Your task to perform on an android device: Show me recent news Image 0: 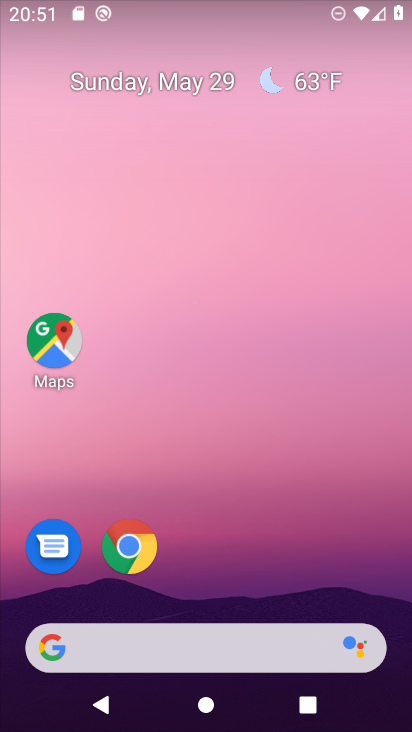
Step 0: click (57, 652)
Your task to perform on an android device: Show me recent news Image 1: 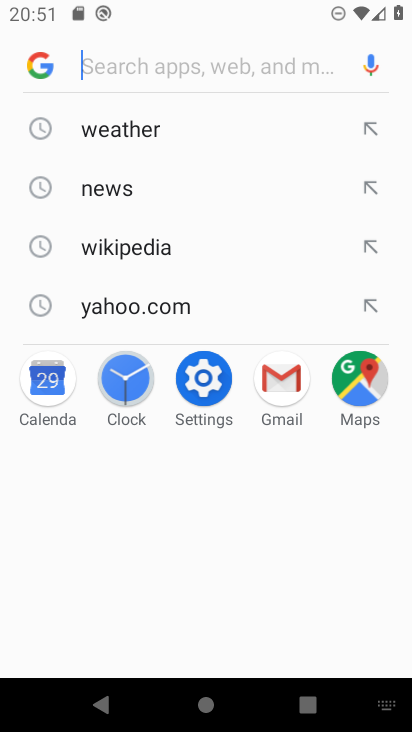
Step 1: click (115, 186)
Your task to perform on an android device: Show me recent news Image 2: 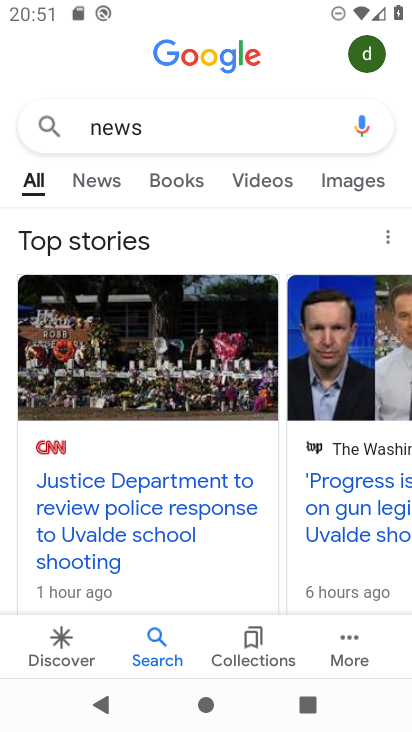
Step 2: click (105, 178)
Your task to perform on an android device: Show me recent news Image 3: 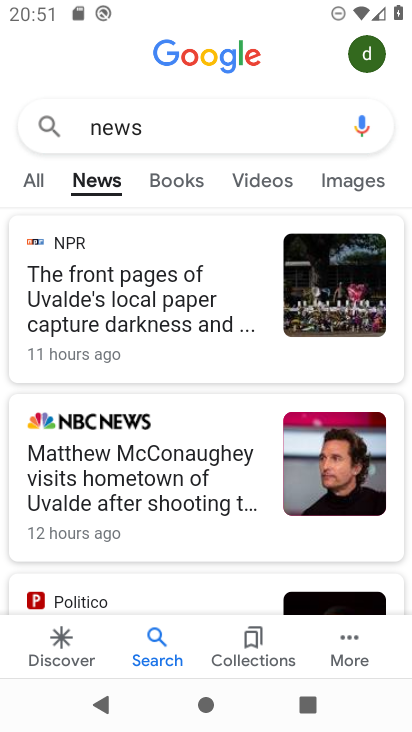
Step 3: task complete